Your task to perform on an android device: turn on javascript in the chrome app Image 0: 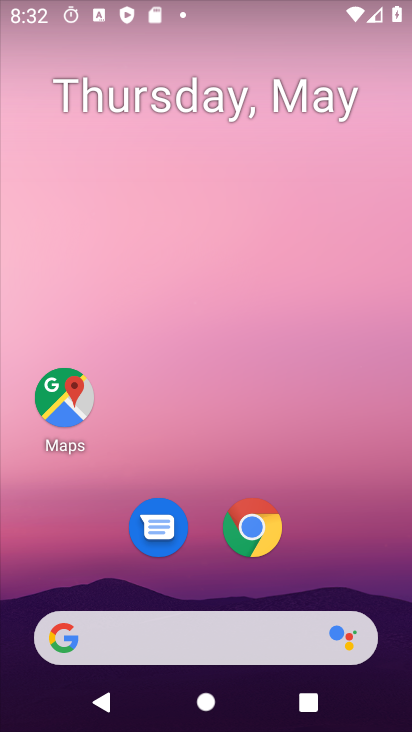
Step 0: click (246, 518)
Your task to perform on an android device: turn on javascript in the chrome app Image 1: 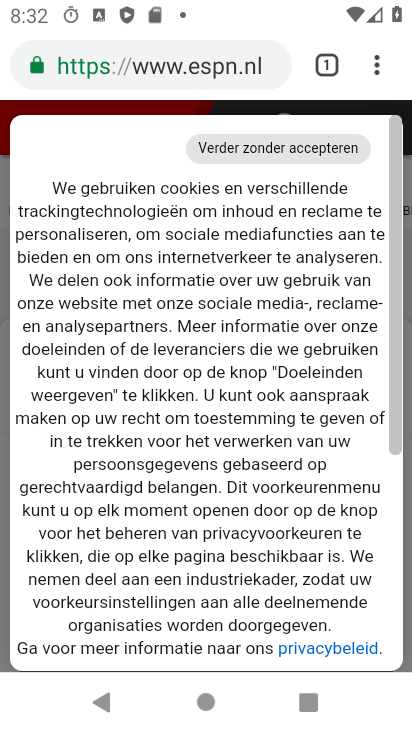
Step 1: click (370, 65)
Your task to perform on an android device: turn on javascript in the chrome app Image 2: 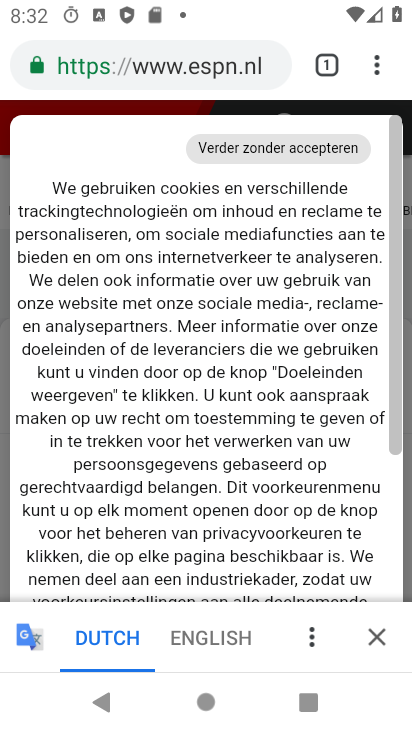
Step 2: click (376, 68)
Your task to perform on an android device: turn on javascript in the chrome app Image 3: 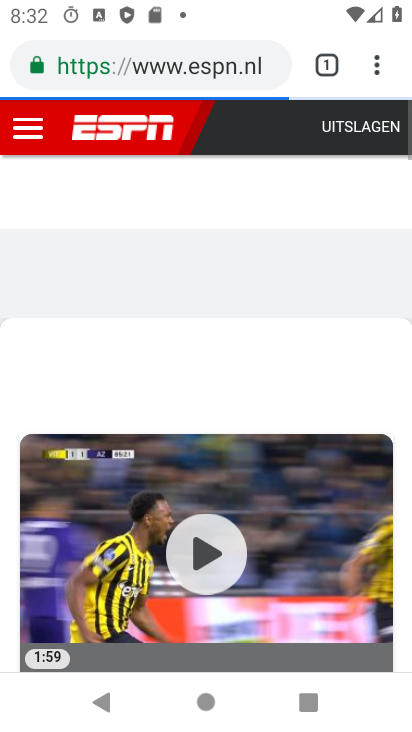
Step 3: click (376, 68)
Your task to perform on an android device: turn on javascript in the chrome app Image 4: 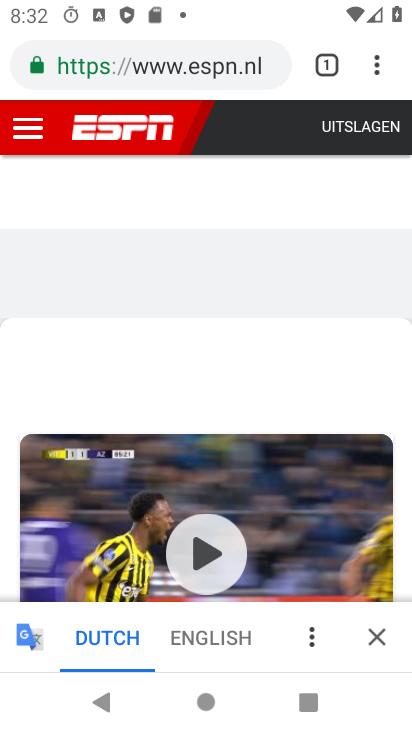
Step 4: click (385, 60)
Your task to perform on an android device: turn on javascript in the chrome app Image 5: 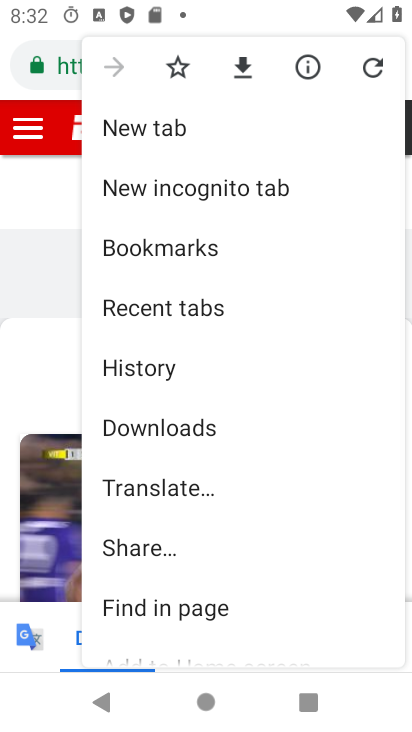
Step 5: drag from (105, 582) to (265, 91)
Your task to perform on an android device: turn on javascript in the chrome app Image 6: 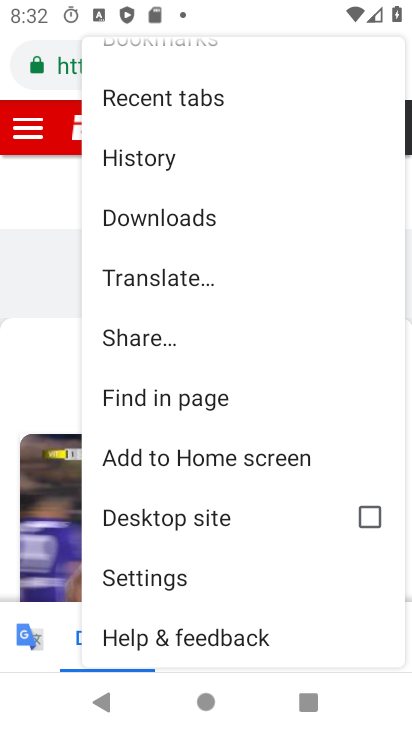
Step 6: click (137, 576)
Your task to perform on an android device: turn on javascript in the chrome app Image 7: 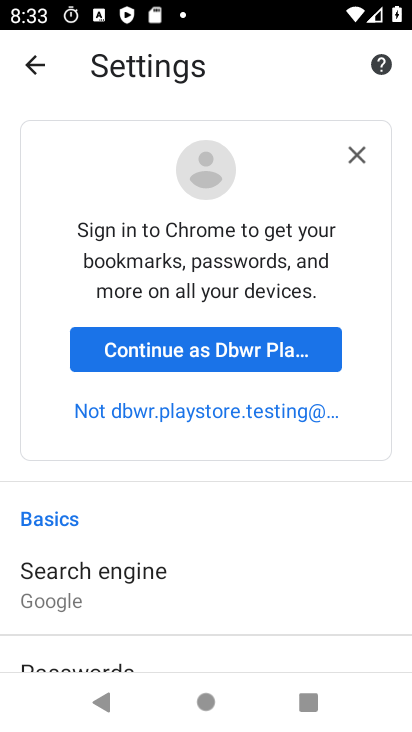
Step 7: click (357, 154)
Your task to perform on an android device: turn on javascript in the chrome app Image 8: 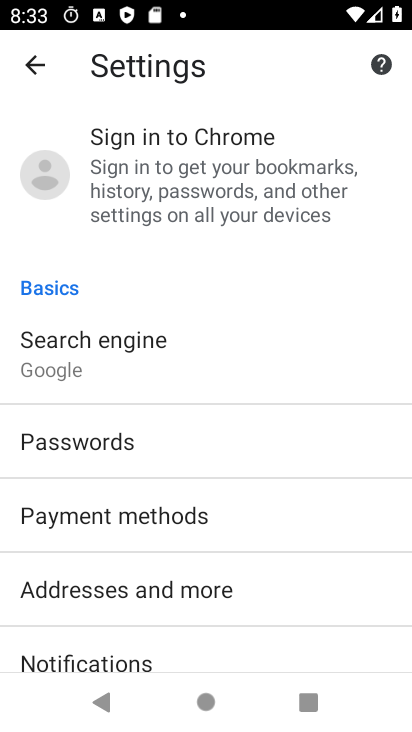
Step 8: drag from (6, 541) to (270, 99)
Your task to perform on an android device: turn on javascript in the chrome app Image 9: 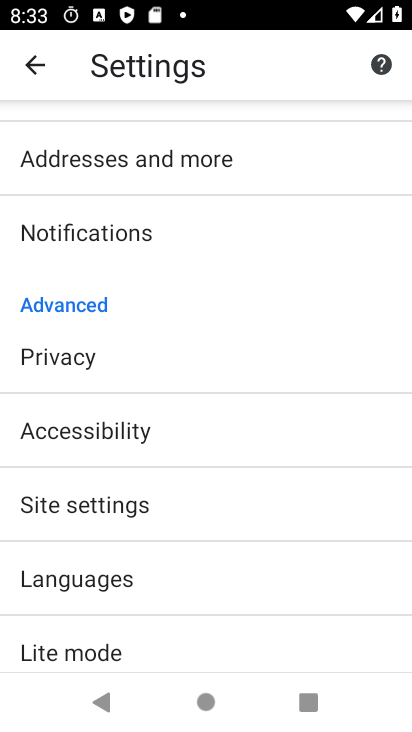
Step 9: click (113, 510)
Your task to perform on an android device: turn on javascript in the chrome app Image 10: 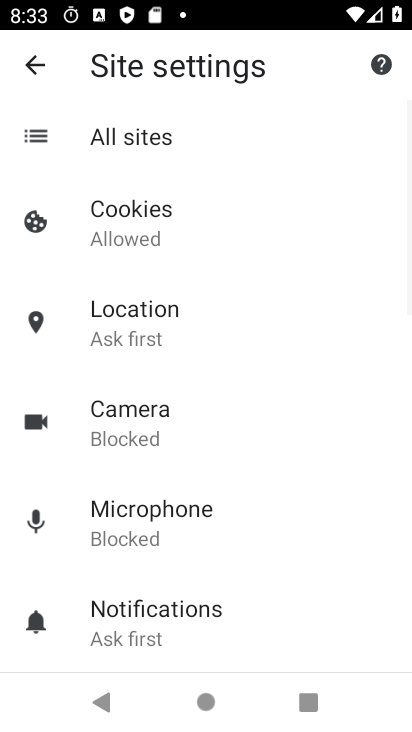
Step 10: drag from (5, 511) to (225, 72)
Your task to perform on an android device: turn on javascript in the chrome app Image 11: 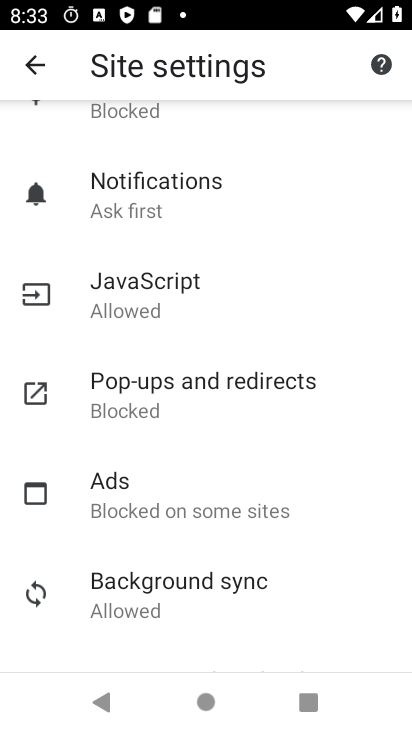
Step 11: click (133, 280)
Your task to perform on an android device: turn on javascript in the chrome app Image 12: 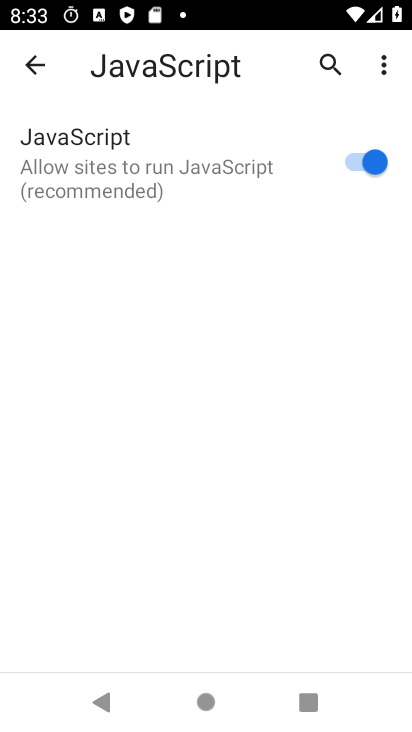
Step 12: task complete